Your task to perform on an android device: change the clock display to analog Image 0: 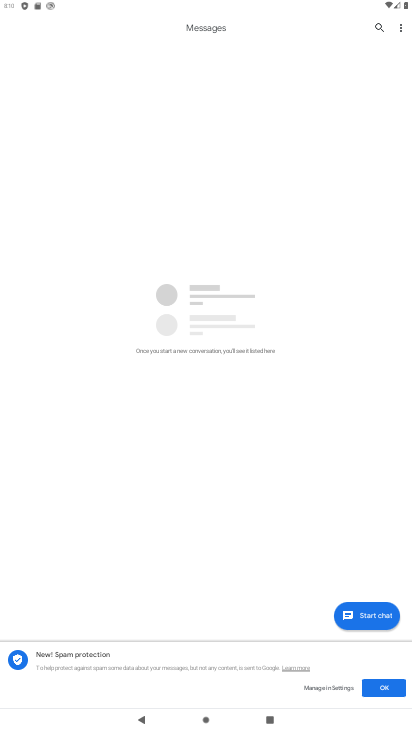
Step 0: drag from (222, 642) to (191, 257)
Your task to perform on an android device: change the clock display to analog Image 1: 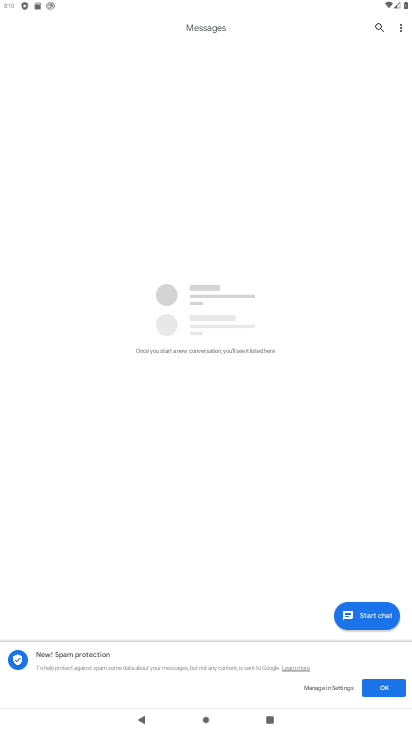
Step 1: press home button
Your task to perform on an android device: change the clock display to analog Image 2: 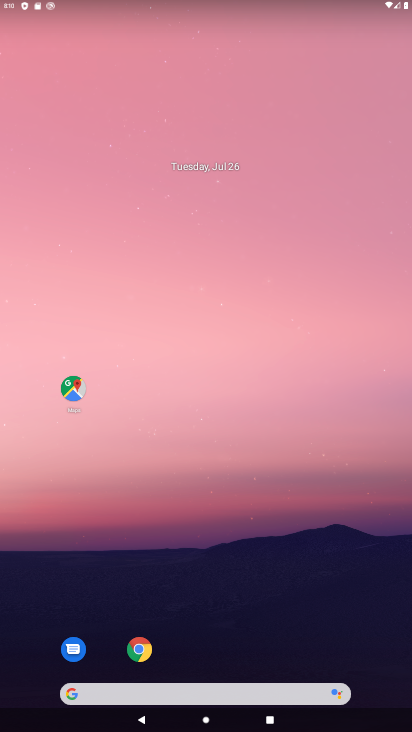
Step 2: drag from (189, 635) to (196, 104)
Your task to perform on an android device: change the clock display to analog Image 3: 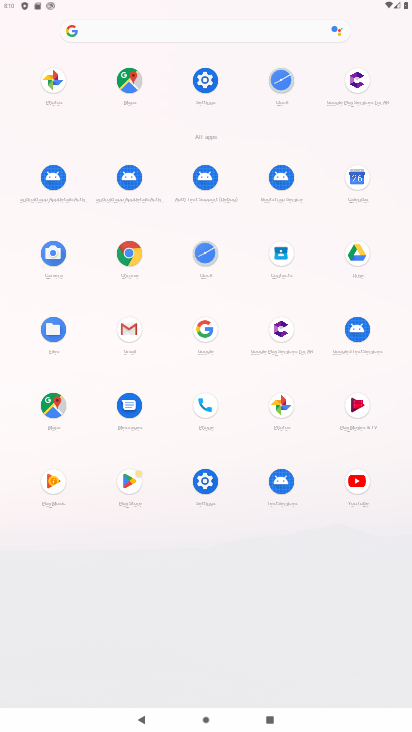
Step 3: click (284, 73)
Your task to perform on an android device: change the clock display to analog Image 4: 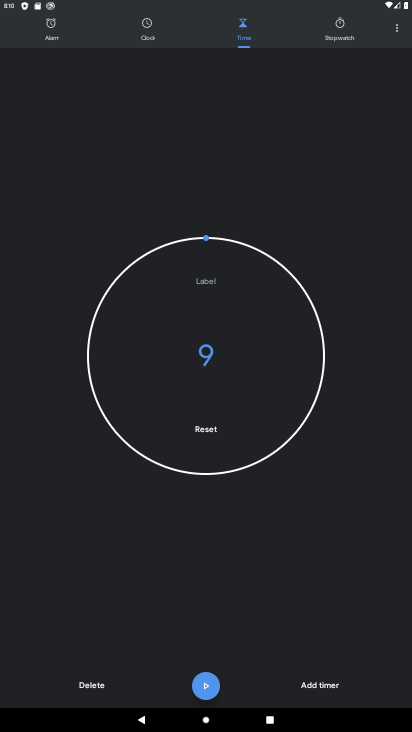
Step 4: click (402, 38)
Your task to perform on an android device: change the clock display to analog Image 5: 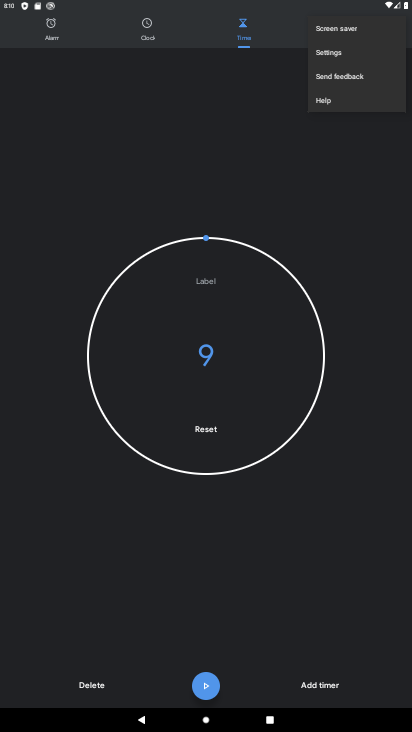
Step 5: click (327, 63)
Your task to perform on an android device: change the clock display to analog Image 6: 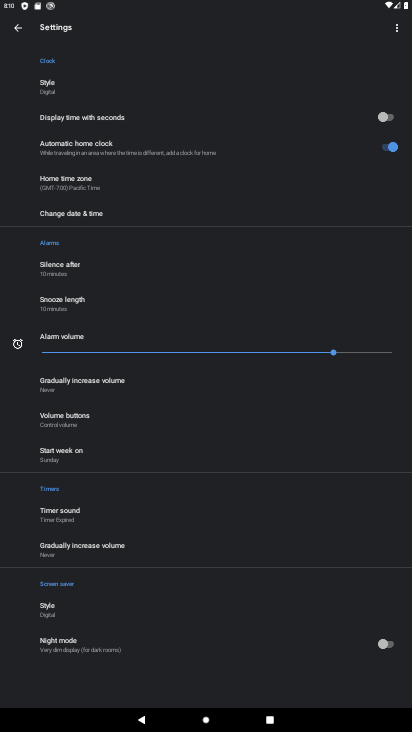
Step 6: click (102, 92)
Your task to perform on an android device: change the clock display to analog Image 7: 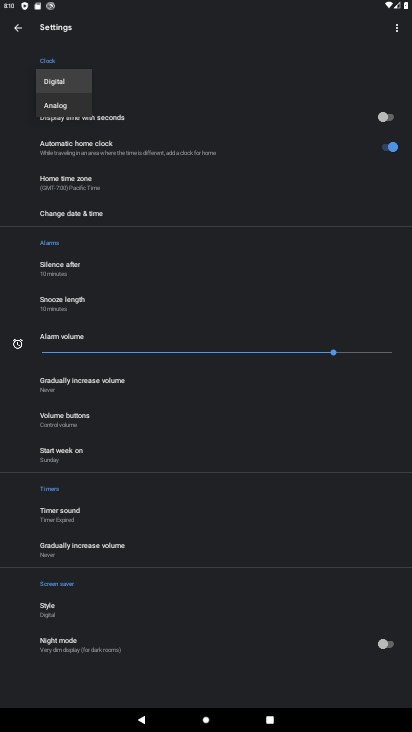
Step 7: click (76, 109)
Your task to perform on an android device: change the clock display to analog Image 8: 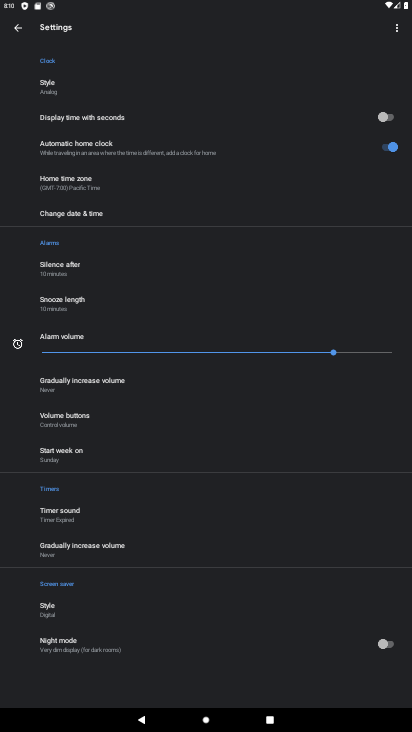
Step 8: task complete